Your task to perform on an android device: delete the emails in spam in the gmail app Image 0: 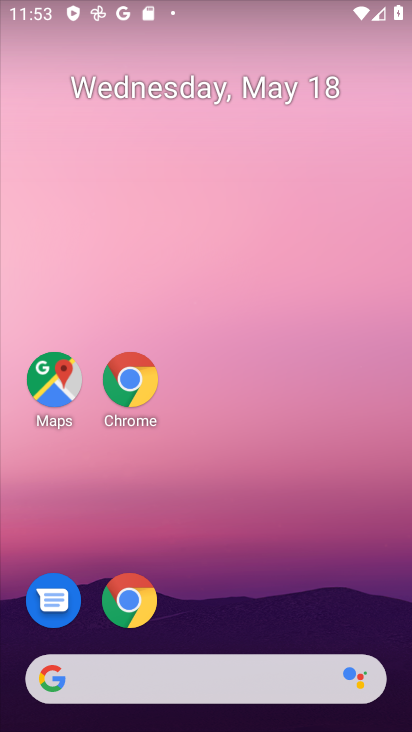
Step 0: drag from (342, 647) to (225, 286)
Your task to perform on an android device: delete the emails in spam in the gmail app Image 1: 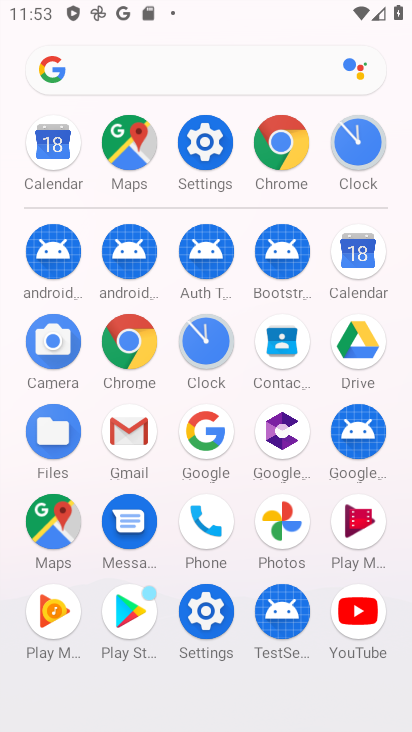
Step 1: click (122, 420)
Your task to perform on an android device: delete the emails in spam in the gmail app Image 2: 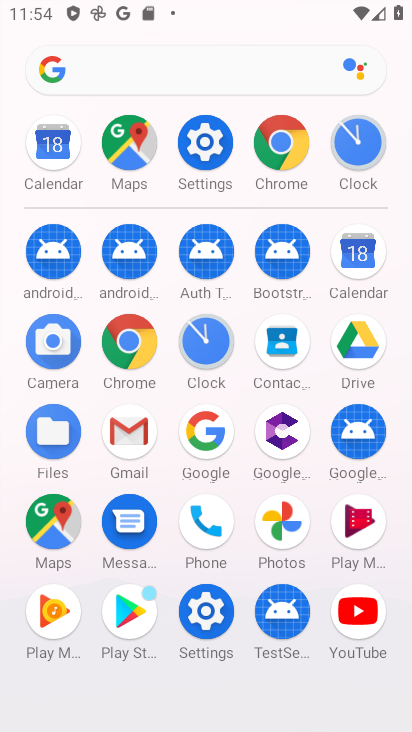
Step 2: click (122, 419)
Your task to perform on an android device: delete the emails in spam in the gmail app Image 3: 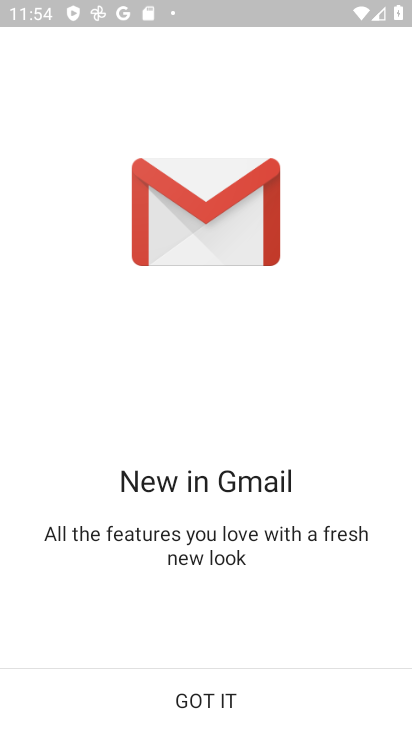
Step 3: click (208, 707)
Your task to perform on an android device: delete the emails in spam in the gmail app Image 4: 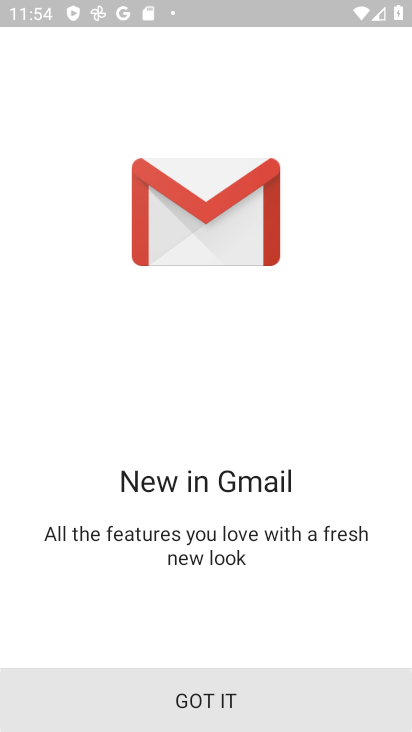
Step 4: click (208, 707)
Your task to perform on an android device: delete the emails in spam in the gmail app Image 5: 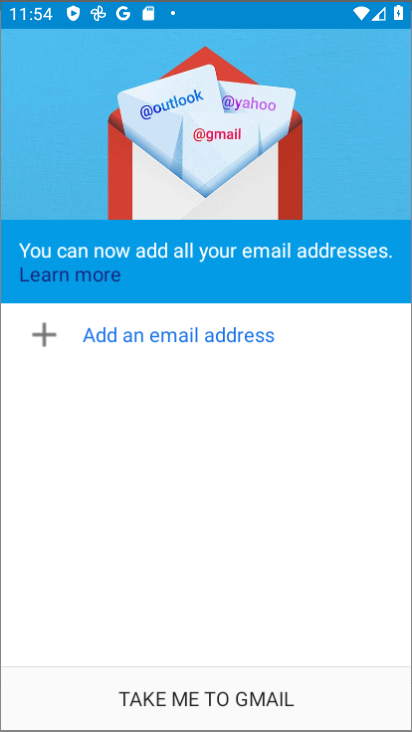
Step 5: click (221, 708)
Your task to perform on an android device: delete the emails in spam in the gmail app Image 6: 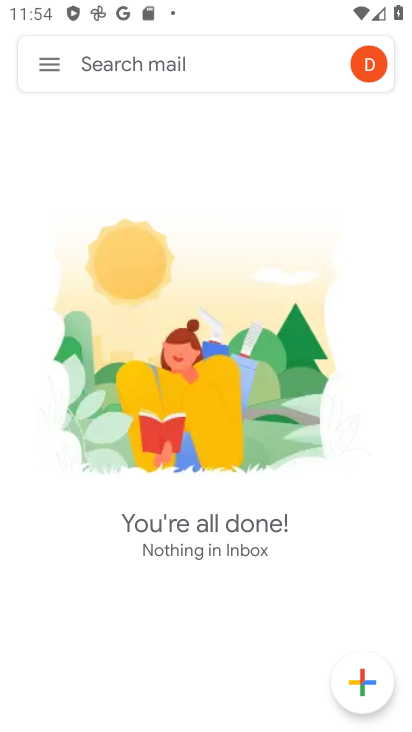
Step 6: click (54, 67)
Your task to perform on an android device: delete the emails in spam in the gmail app Image 7: 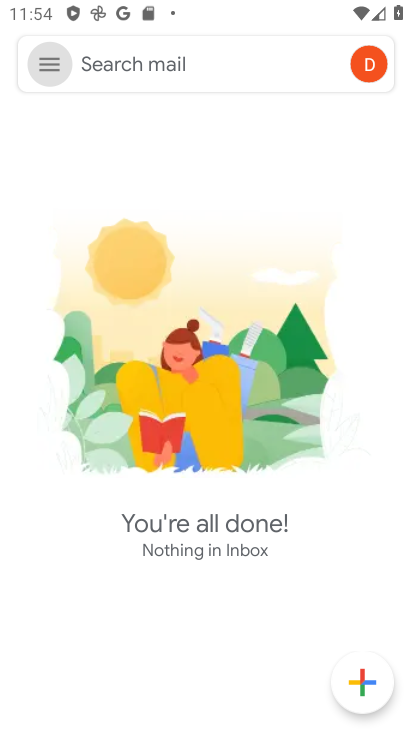
Step 7: click (54, 67)
Your task to perform on an android device: delete the emails in spam in the gmail app Image 8: 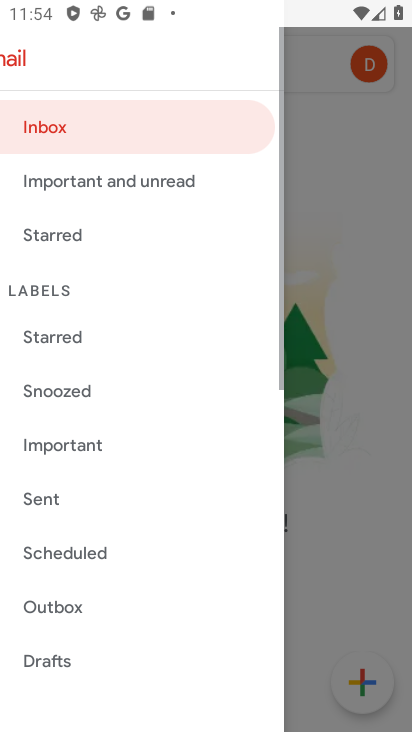
Step 8: click (54, 67)
Your task to perform on an android device: delete the emails in spam in the gmail app Image 9: 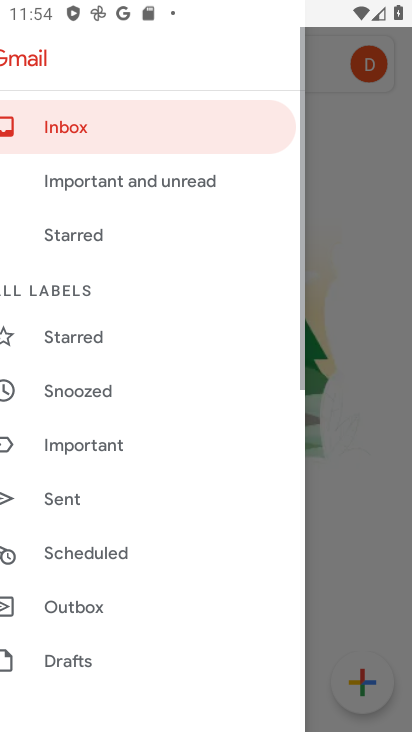
Step 9: click (55, 66)
Your task to perform on an android device: delete the emails in spam in the gmail app Image 10: 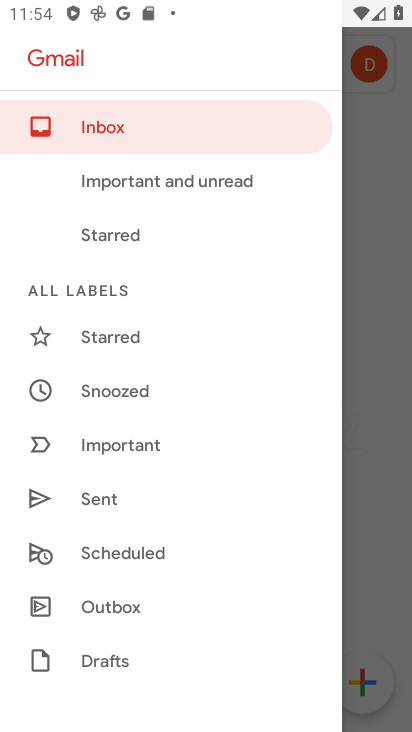
Step 10: drag from (178, 515) to (123, 122)
Your task to perform on an android device: delete the emails in spam in the gmail app Image 11: 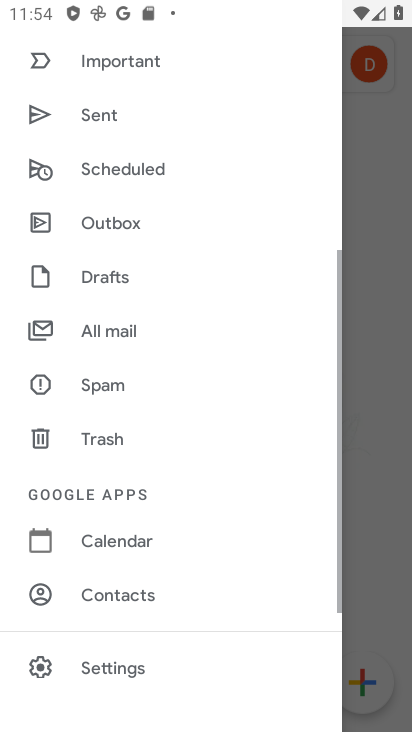
Step 11: drag from (136, 503) to (101, 143)
Your task to perform on an android device: delete the emails in spam in the gmail app Image 12: 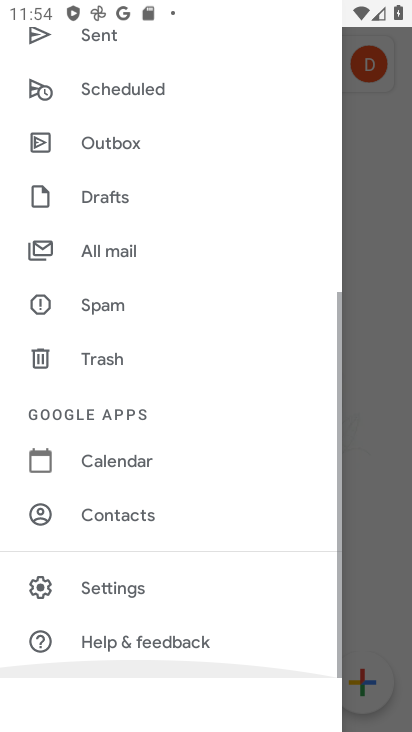
Step 12: drag from (138, 575) to (137, 81)
Your task to perform on an android device: delete the emails in spam in the gmail app Image 13: 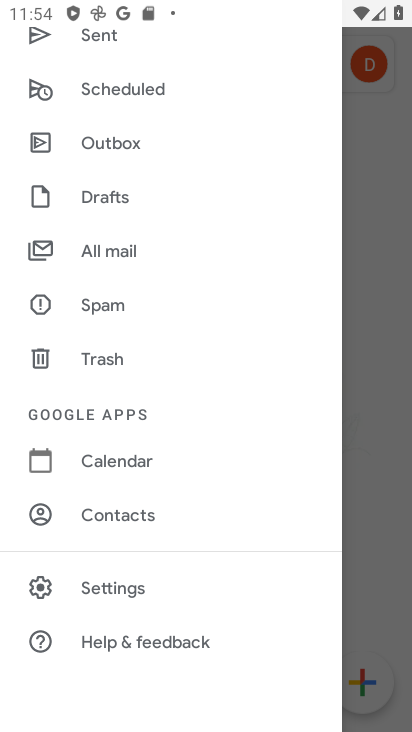
Step 13: click (100, 249)
Your task to perform on an android device: delete the emails in spam in the gmail app Image 14: 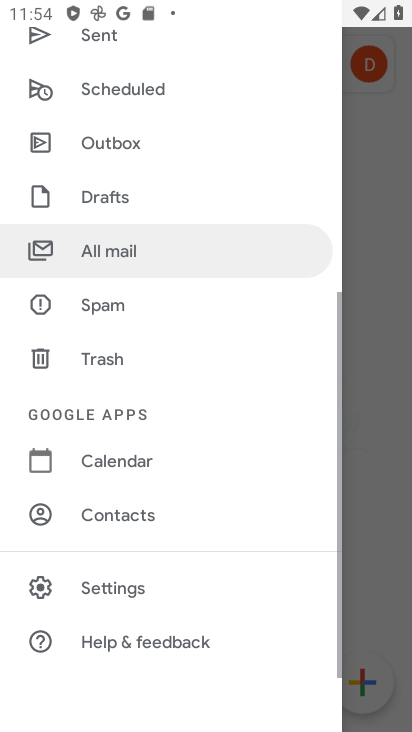
Step 14: click (100, 249)
Your task to perform on an android device: delete the emails in spam in the gmail app Image 15: 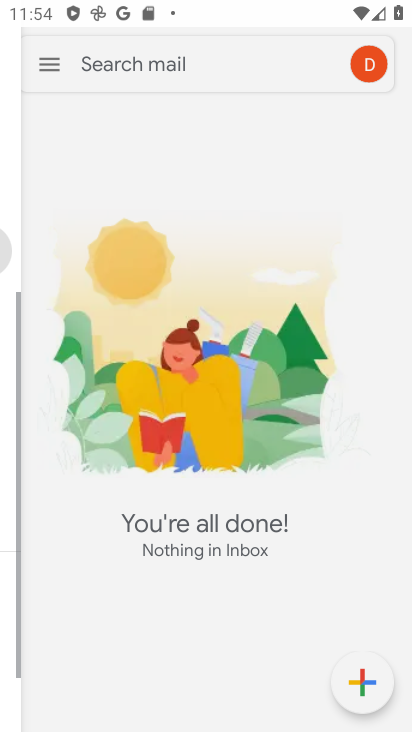
Step 15: click (100, 249)
Your task to perform on an android device: delete the emails in spam in the gmail app Image 16: 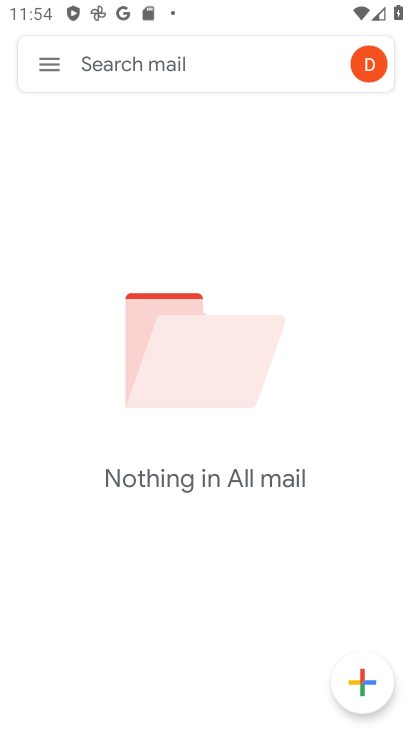
Step 16: task complete